Your task to perform on an android device: check android version Image 0: 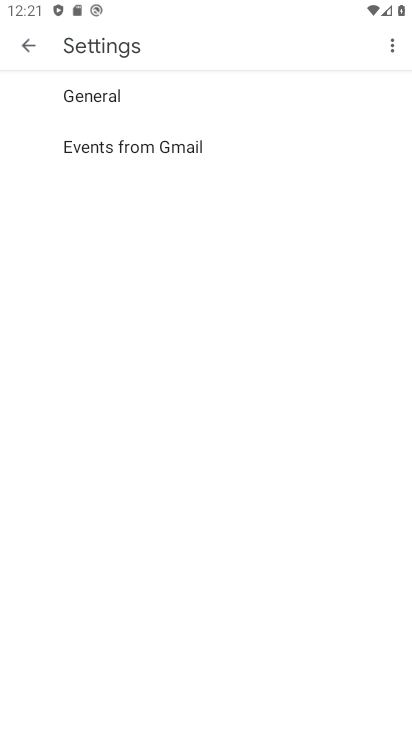
Step 0: press home button
Your task to perform on an android device: check android version Image 1: 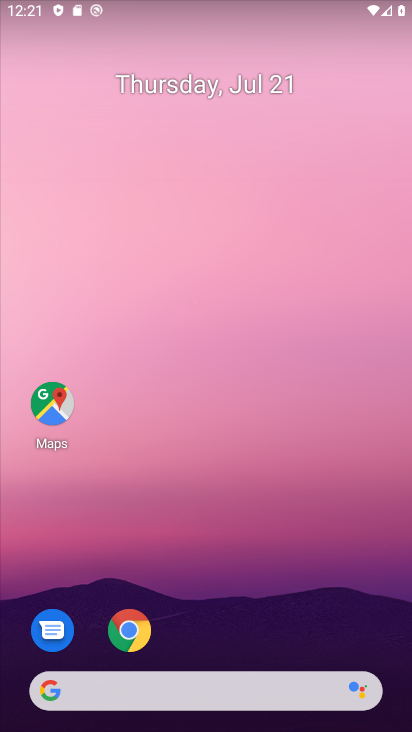
Step 1: drag from (222, 621) to (260, 104)
Your task to perform on an android device: check android version Image 2: 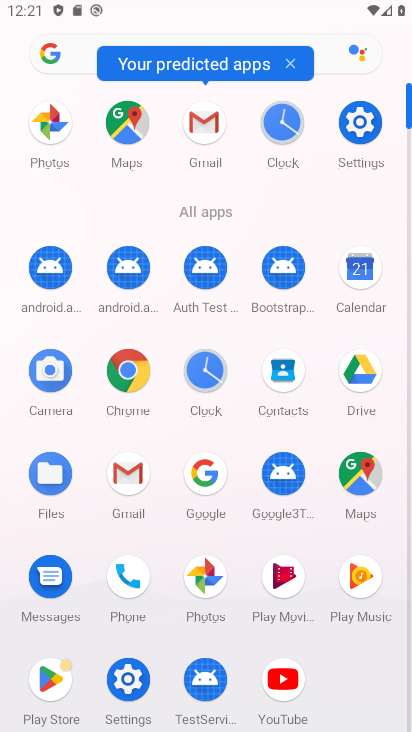
Step 2: click (361, 119)
Your task to perform on an android device: check android version Image 3: 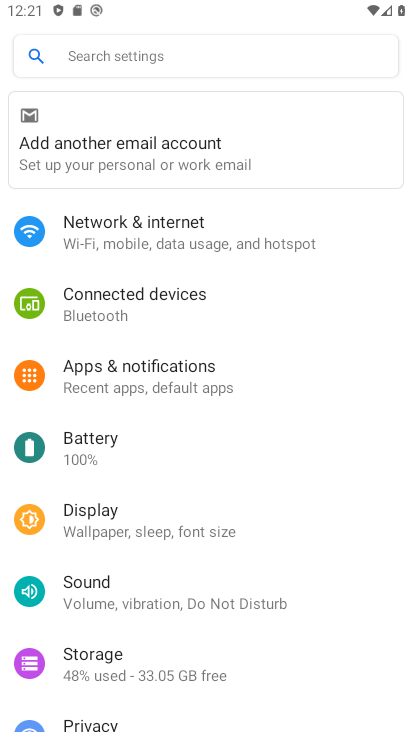
Step 3: drag from (223, 685) to (249, 104)
Your task to perform on an android device: check android version Image 4: 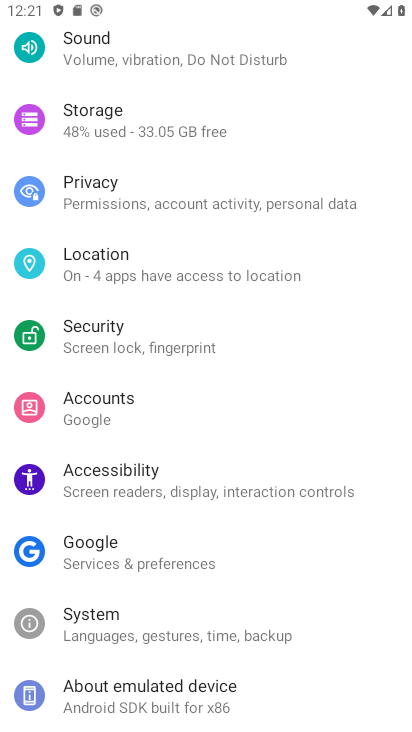
Step 4: drag from (182, 702) to (168, 383)
Your task to perform on an android device: check android version Image 5: 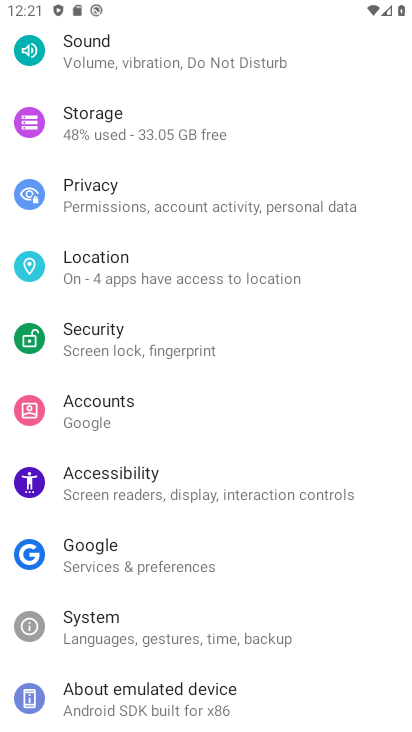
Step 5: click (150, 714)
Your task to perform on an android device: check android version Image 6: 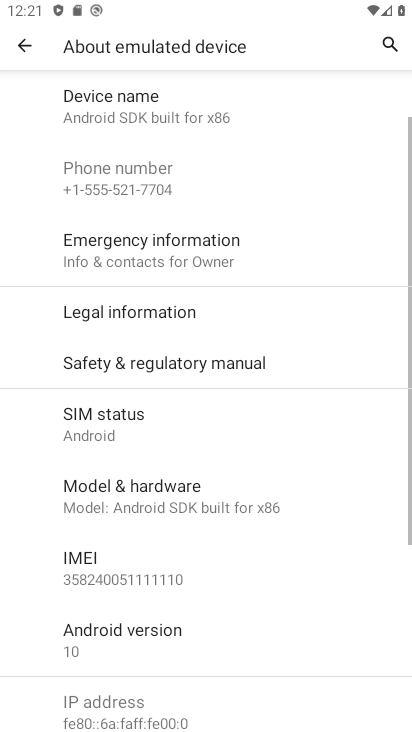
Step 6: click (150, 650)
Your task to perform on an android device: check android version Image 7: 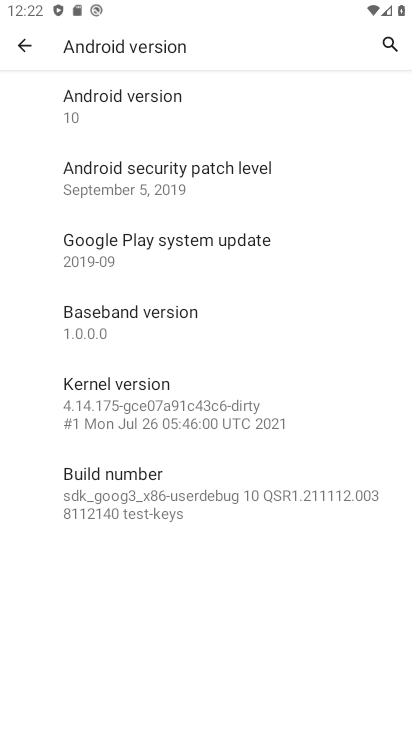
Step 7: task complete